Your task to perform on an android device: turn off improve location accuracy Image 0: 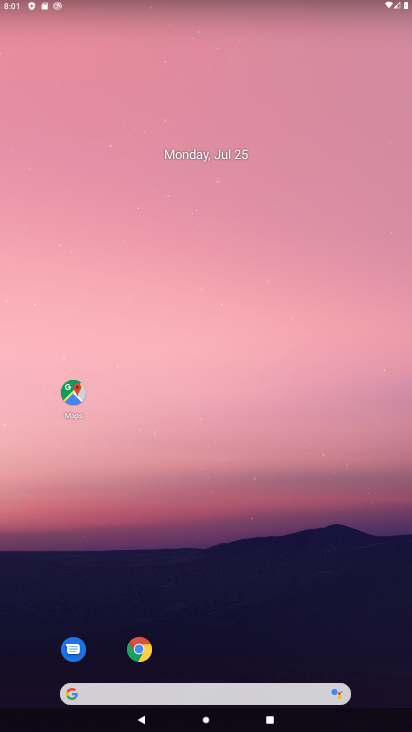
Step 0: drag from (185, 656) to (135, 194)
Your task to perform on an android device: turn off improve location accuracy Image 1: 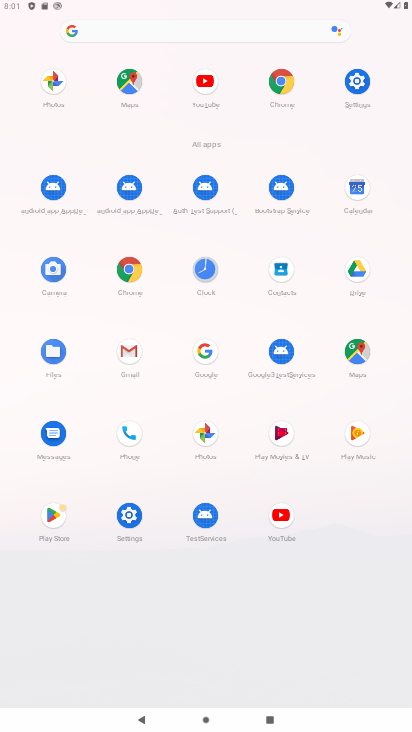
Step 1: click (342, 91)
Your task to perform on an android device: turn off improve location accuracy Image 2: 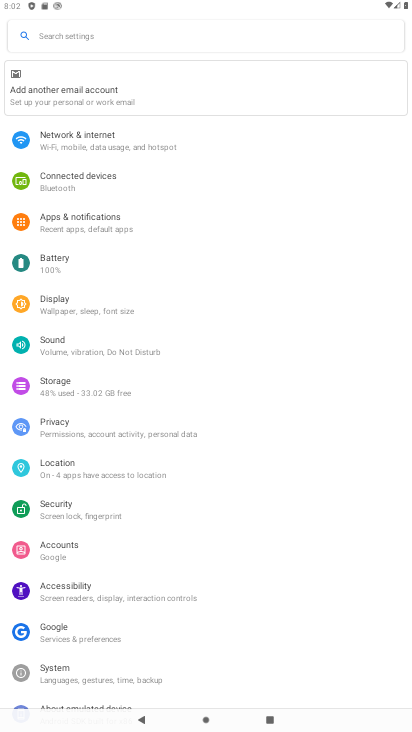
Step 2: click (47, 465)
Your task to perform on an android device: turn off improve location accuracy Image 3: 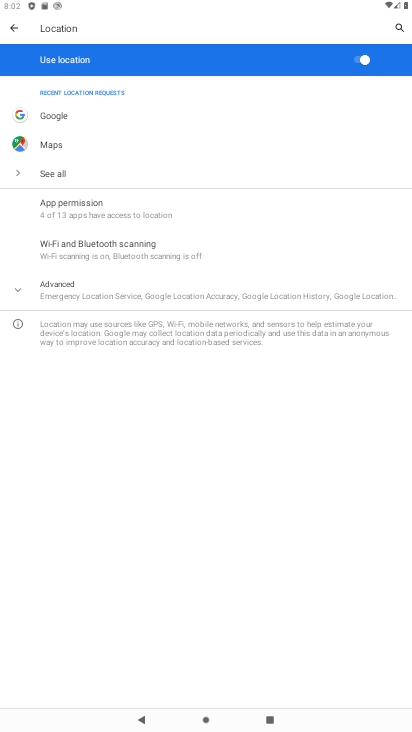
Step 3: click (129, 284)
Your task to perform on an android device: turn off improve location accuracy Image 4: 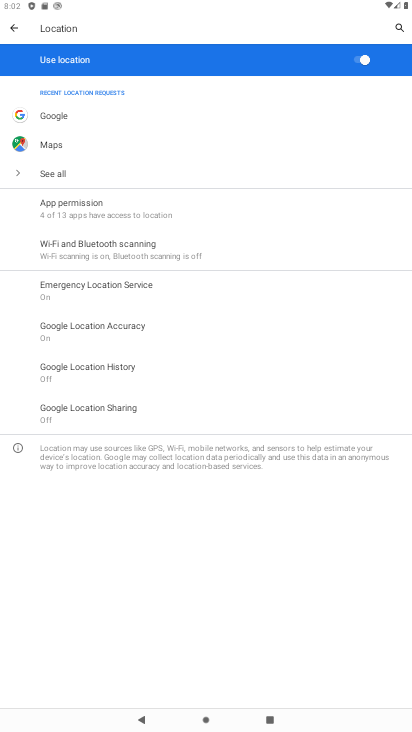
Step 4: click (46, 325)
Your task to perform on an android device: turn off improve location accuracy Image 5: 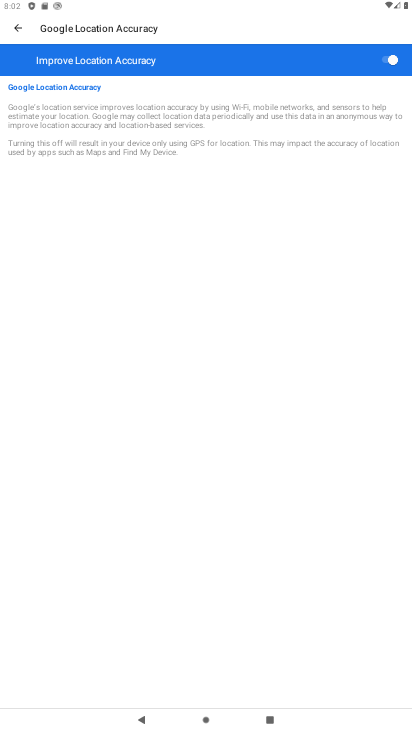
Step 5: click (383, 63)
Your task to perform on an android device: turn off improve location accuracy Image 6: 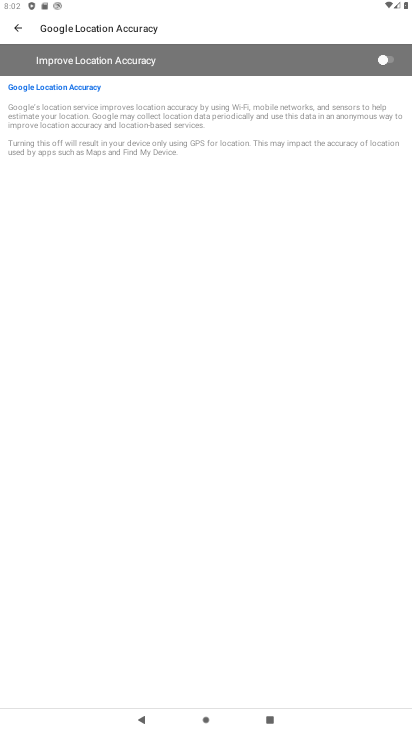
Step 6: task complete